Your task to perform on an android device: turn off airplane mode Image 0: 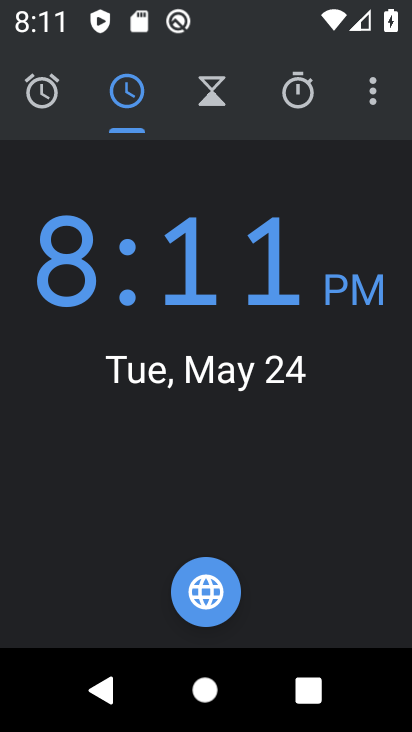
Step 0: press back button
Your task to perform on an android device: turn off airplane mode Image 1: 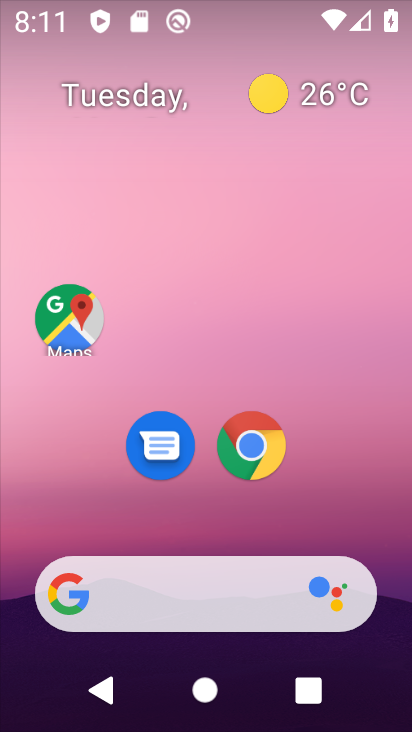
Step 1: drag from (333, 524) to (358, 146)
Your task to perform on an android device: turn off airplane mode Image 2: 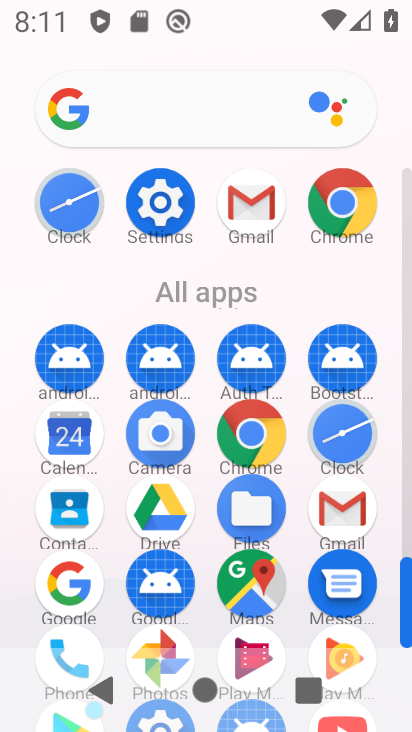
Step 2: click (161, 202)
Your task to perform on an android device: turn off airplane mode Image 3: 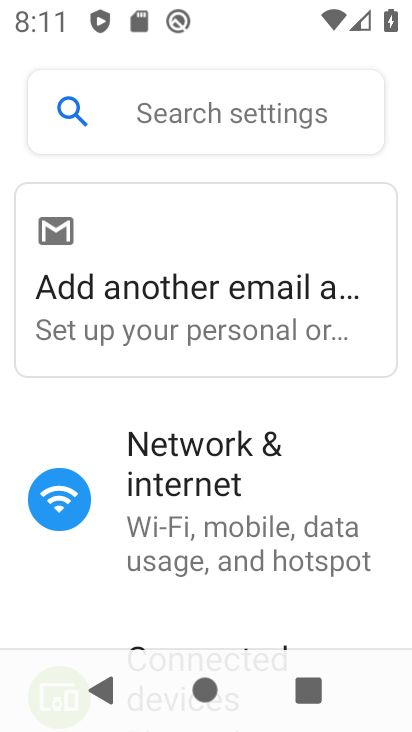
Step 3: click (206, 482)
Your task to perform on an android device: turn off airplane mode Image 4: 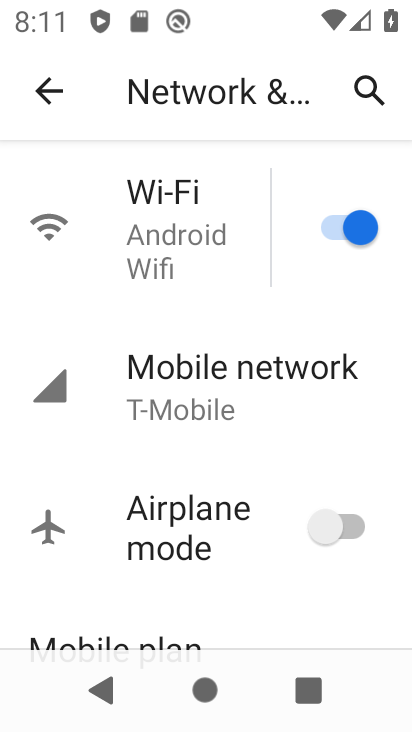
Step 4: task complete